Your task to perform on an android device: Go to Amazon Image 0: 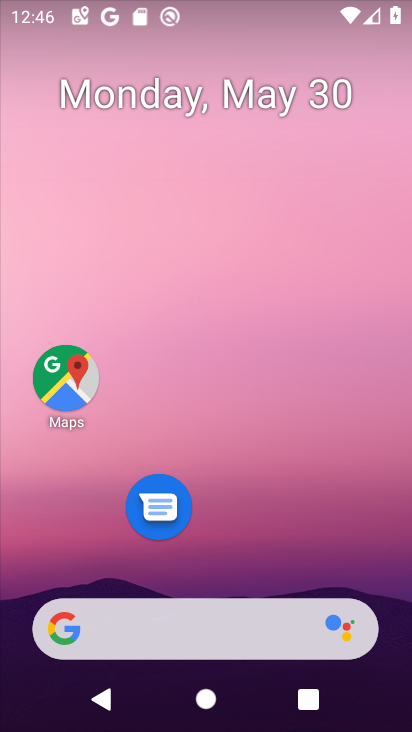
Step 0: drag from (257, 555) to (263, 121)
Your task to perform on an android device: Go to Amazon Image 1: 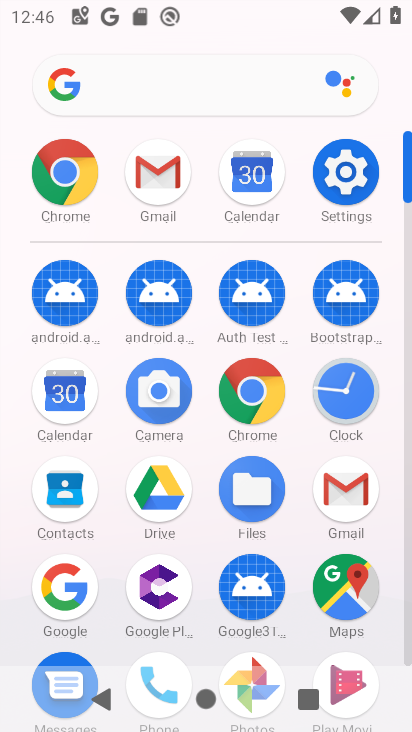
Step 1: click (244, 385)
Your task to perform on an android device: Go to Amazon Image 2: 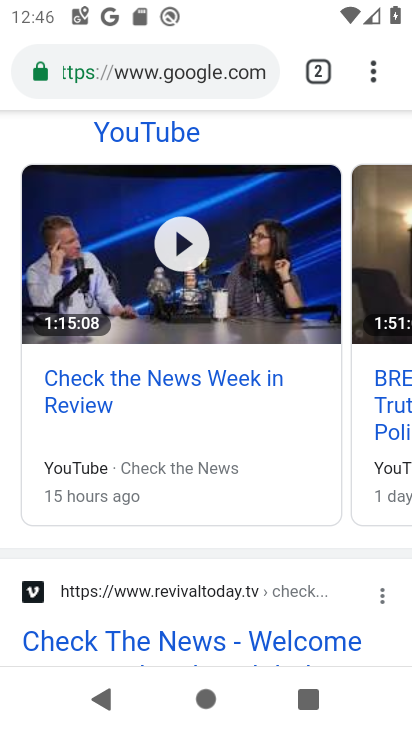
Step 2: drag from (375, 74) to (138, 148)
Your task to perform on an android device: Go to Amazon Image 3: 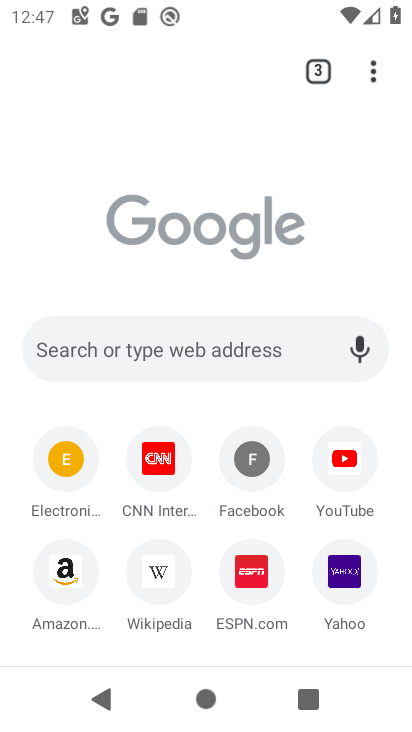
Step 3: click (65, 571)
Your task to perform on an android device: Go to Amazon Image 4: 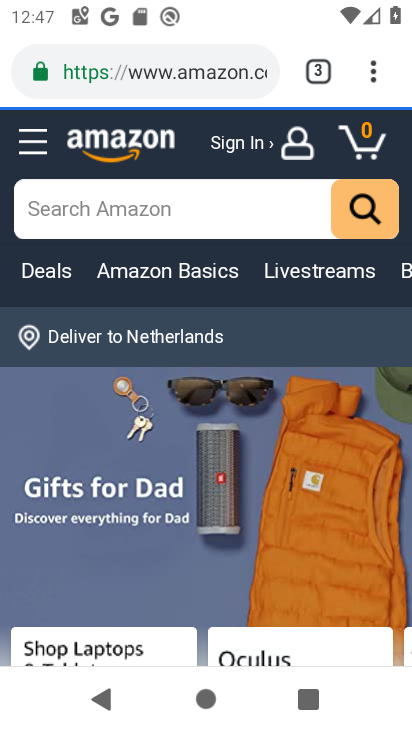
Step 4: task complete